Your task to perform on an android device: Open wifi settings Image 0: 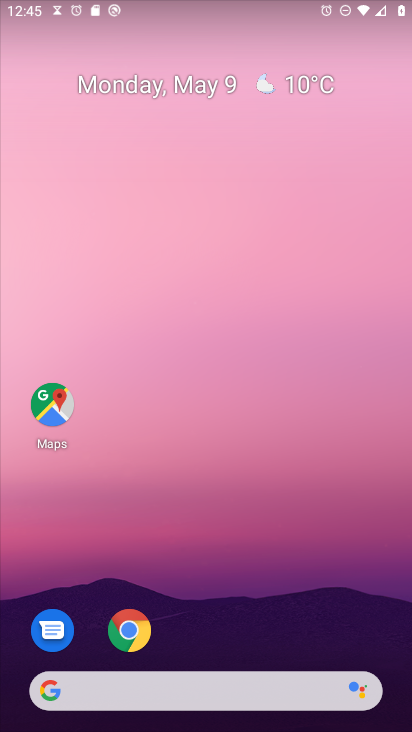
Step 0: drag from (216, 702) to (365, 191)
Your task to perform on an android device: Open wifi settings Image 1: 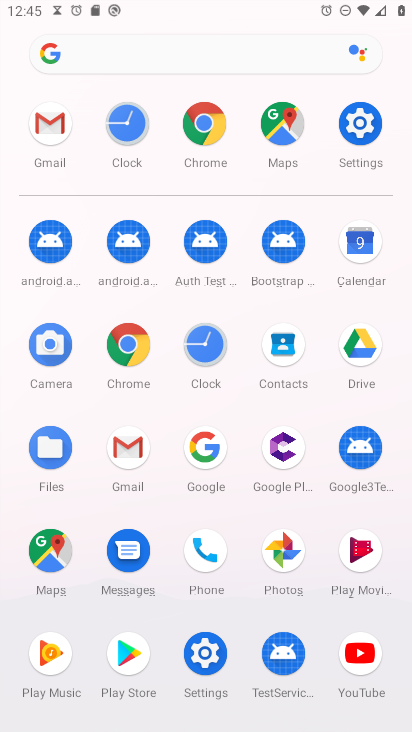
Step 1: click (368, 133)
Your task to perform on an android device: Open wifi settings Image 2: 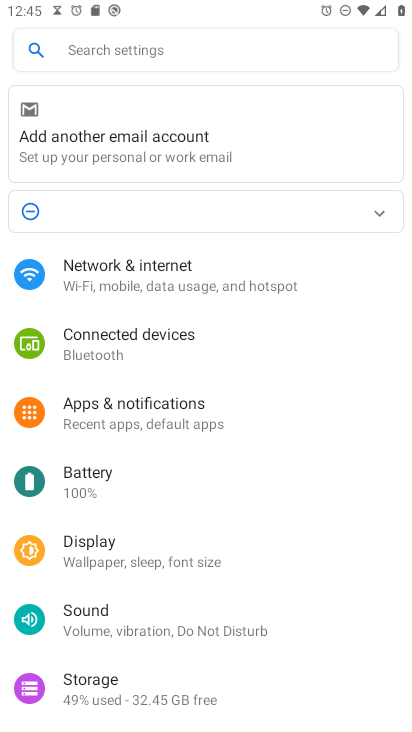
Step 2: click (139, 272)
Your task to perform on an android device: Open wifi settings Image 3: 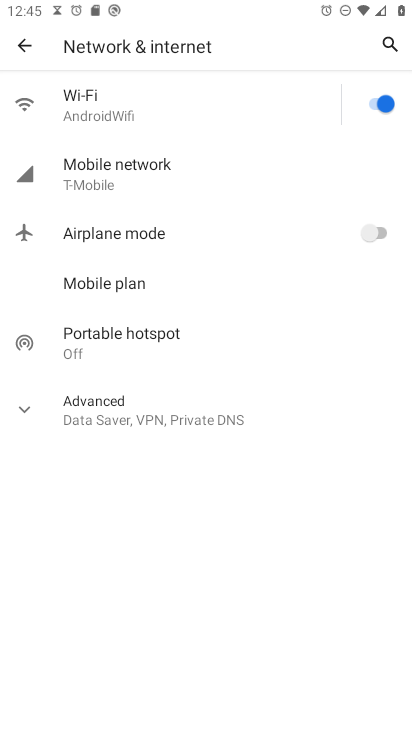
Step 3: click (103, 111)
Your task to perform on an android device: Open wifi settings Image 4: 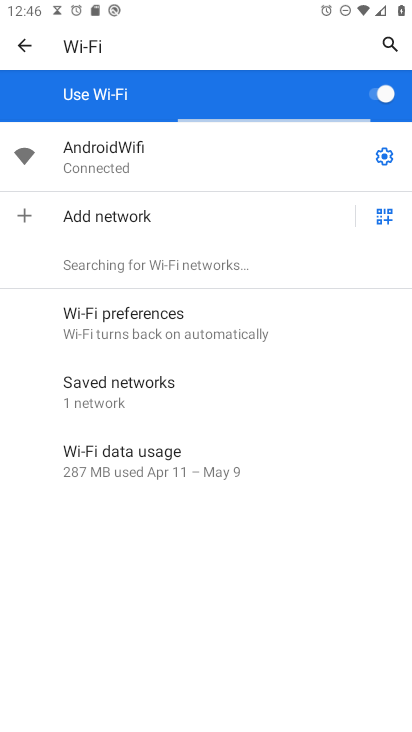
Step 4: task complete